Your task to perform on an android device: Go to eBay Image 0: 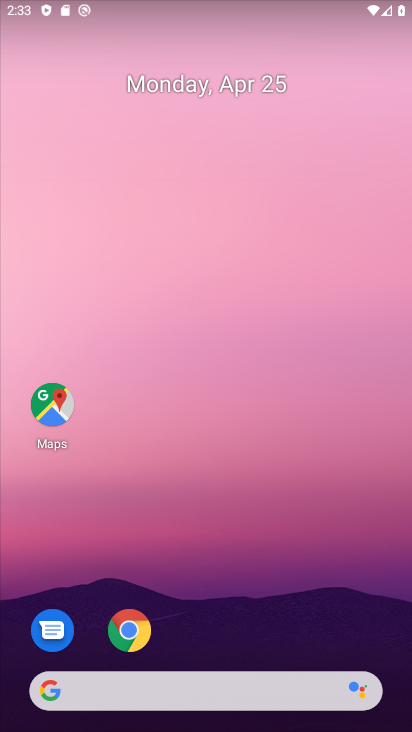
Step 0: click (118, 627)
Your task to perform on an android device: Go to eBay Image 1: 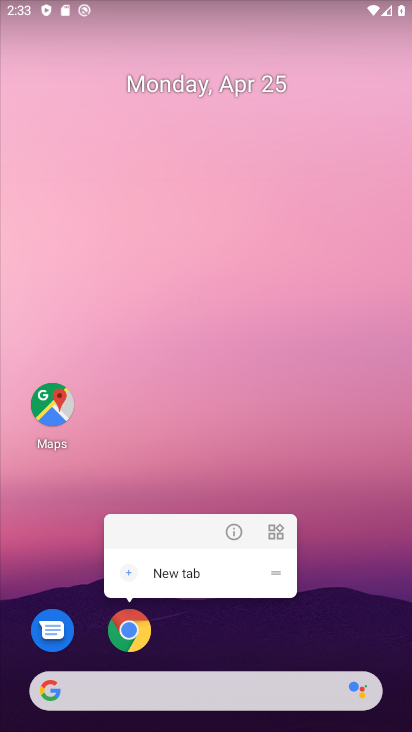
Step 1: click (117, 631)
Your task to perform on an android device: Go to eBay Image 2: 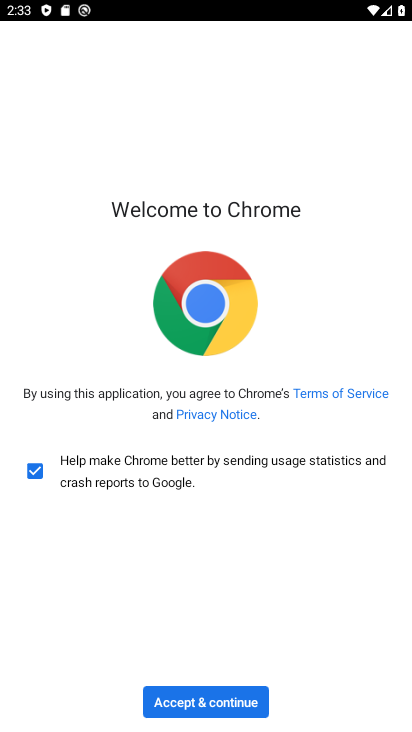
Step 2: click (215, 692)
Your task to perform on an android device: Go to eBay Image 3: 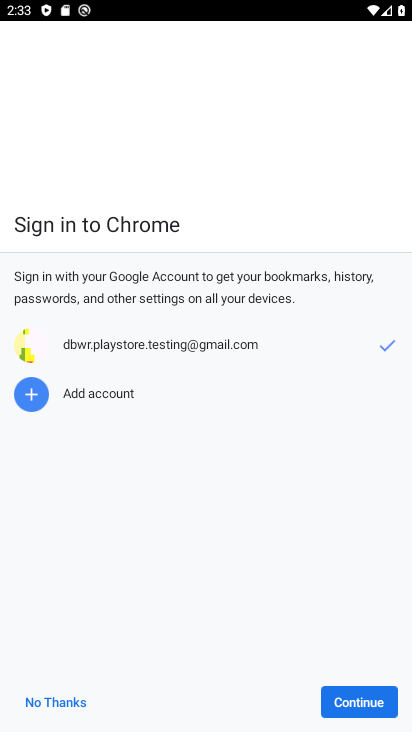
Step 3: click (350, 705)
Your task to perform on an android device: Go to eBay Image 4: 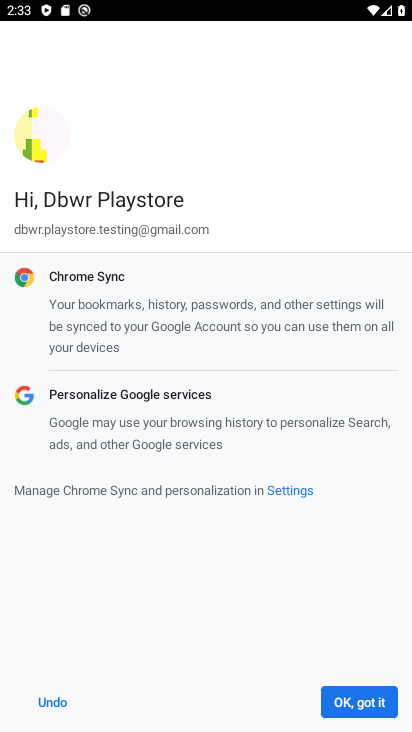
Step 4: click (354, 703)
Your task to perform on an android device: Go to eBay Image 5: 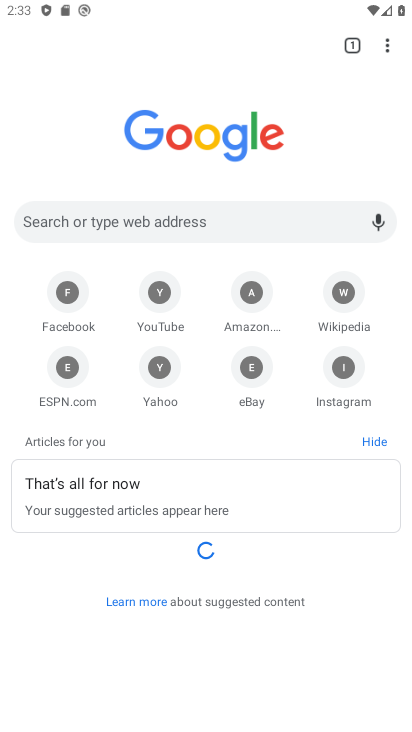
Step 5: click (254, 366)
Your task to perform on an android device: Go to eBay Image 6: 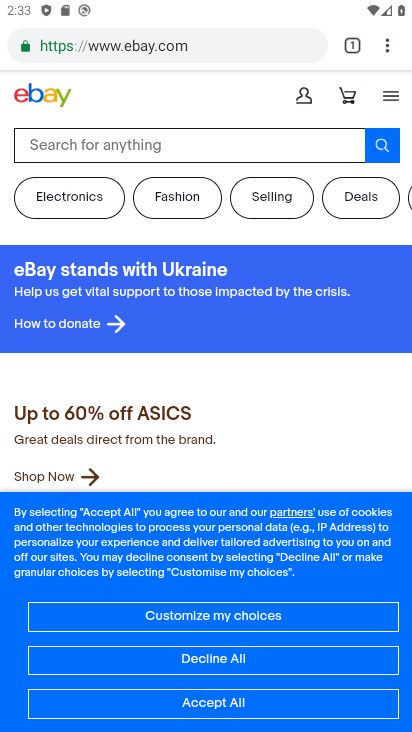
Step 6: task complete